Your task to perform on an android device: Show the shopping cart on bestbuy.com. Add "lenovo thinkpad" to the cart on bestbuy.com Image 0: 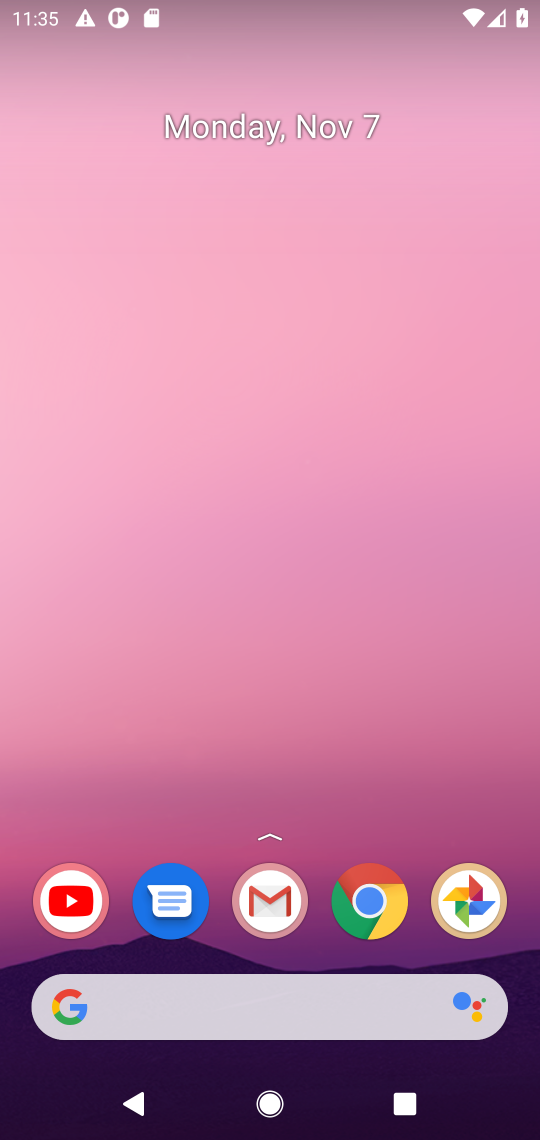
Step 0: click (387, 895)
Your task to perform on an android device: Show the shopping cart on bestbuy.com. Add "lenovo thinkpad" to the cart on bestbuy.com Image 1: 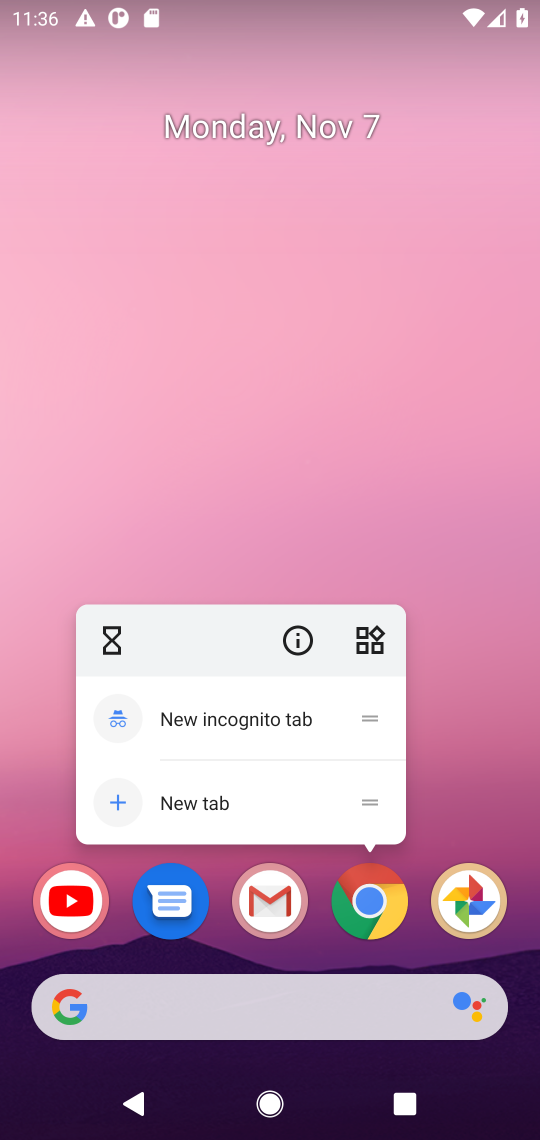
Step 1: click (395, 887)
Your task to perform on an android device: Show the shopping cart on bestbuy.com. Add "lenovo thinkpad" to the cart on bestbuy.com Image 2: 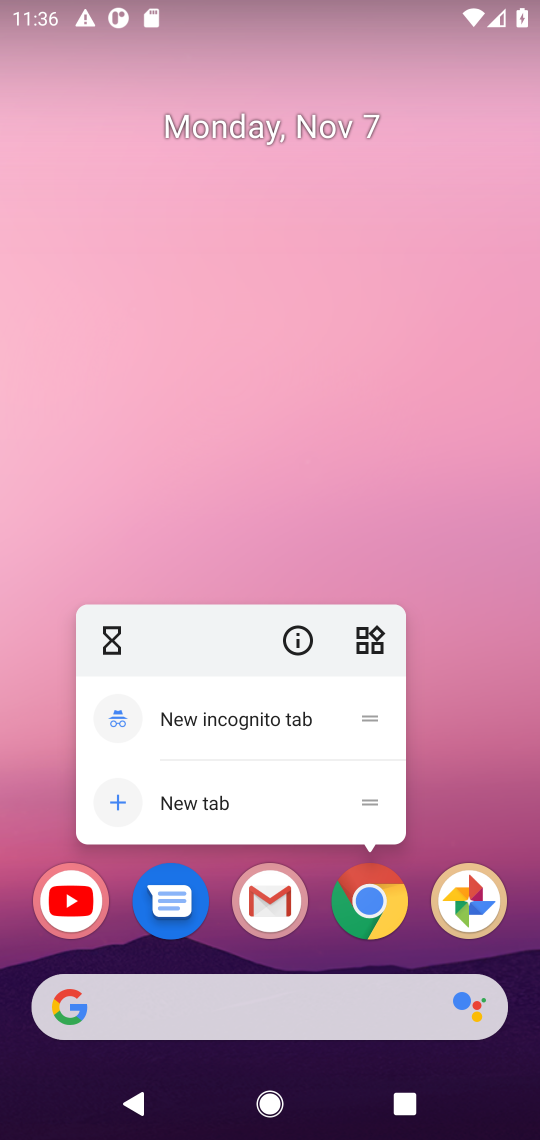
Step 2: click (395, 887)
Your task to perform on an android device: Show the shopping cart on bestbuy.com. Add "lenovo thinkpad" to the cart on bestbuy.com Image 3: 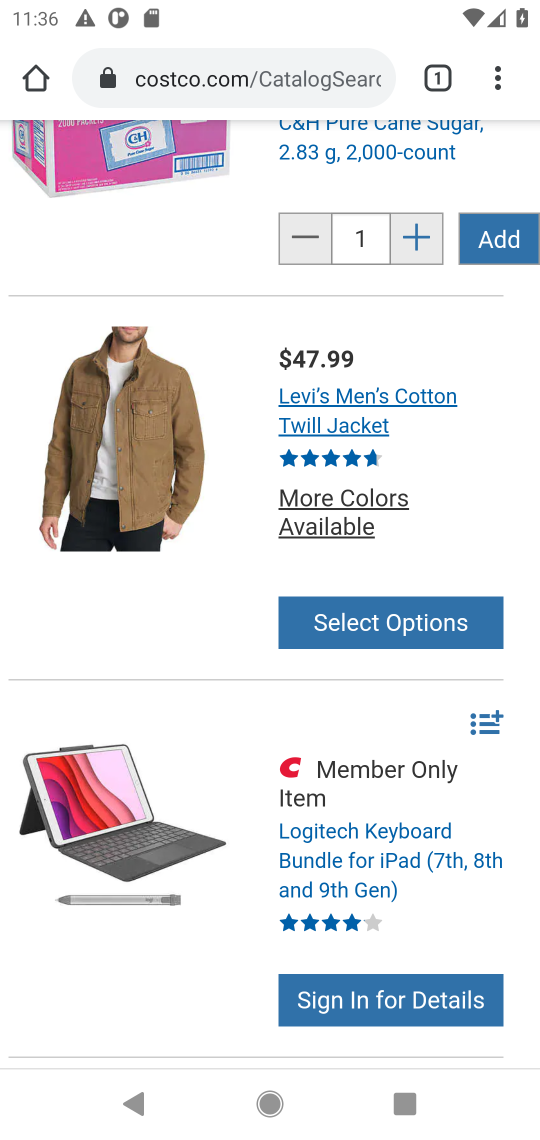
Step 3: click (214, 79)
Your task to perform on an android device: Show the shopping cart on bestbuy.com. Add "lenovo thinkpad" to the cart on bestbuy.com Image 4: 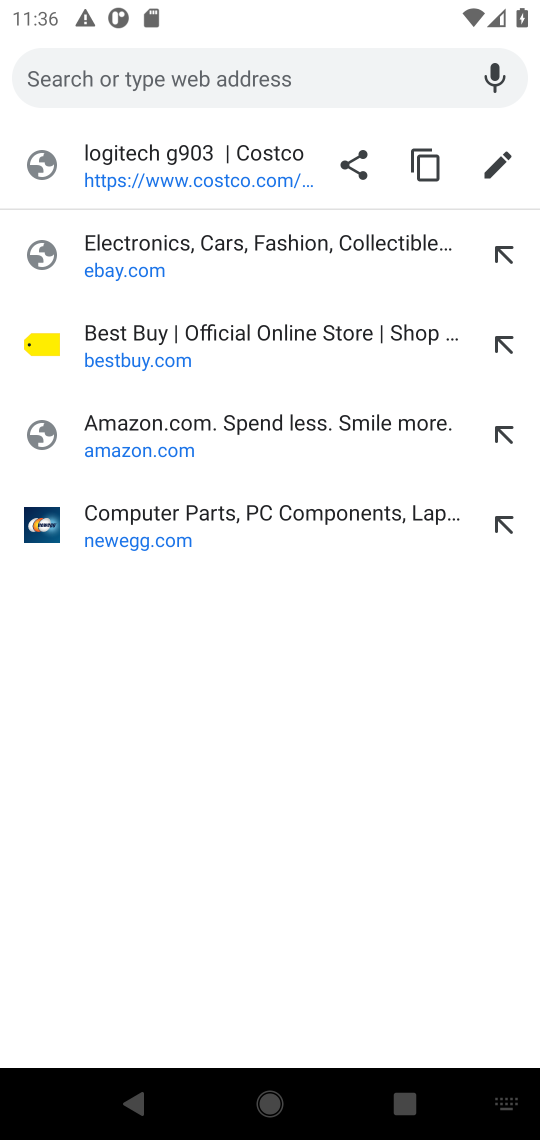
Step 4: type "bestbuy.com"
Your task to perform on an android device: Show the shopping cart on bestbuy.com. Add "lenovo thinkpad" to the cart on bestbuy.com Image 5: 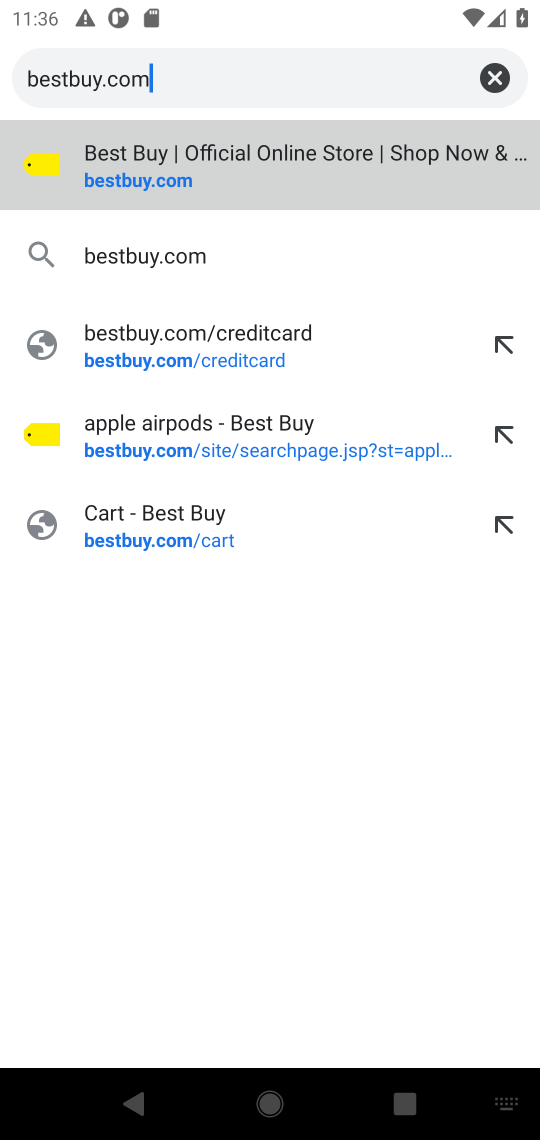
Step 5: click (235, 187)
Your task to perform on an android device: Show the shopping cart on bestbuy.com. Add "lenovo thinkpad" to the cart on bestbuy.com Image 6: 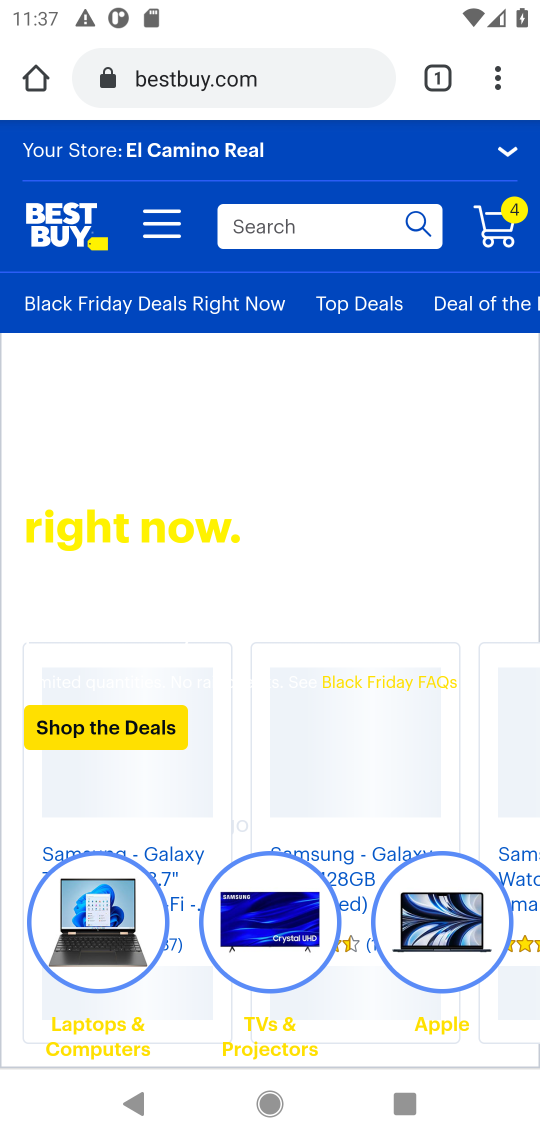
Step 6: click (342, 237)
Your task to perform on an android device: Show the shopping cart on bestbuy.com. Add "lenovo thinkpad" to the cart on bestbuy.com Image 7: 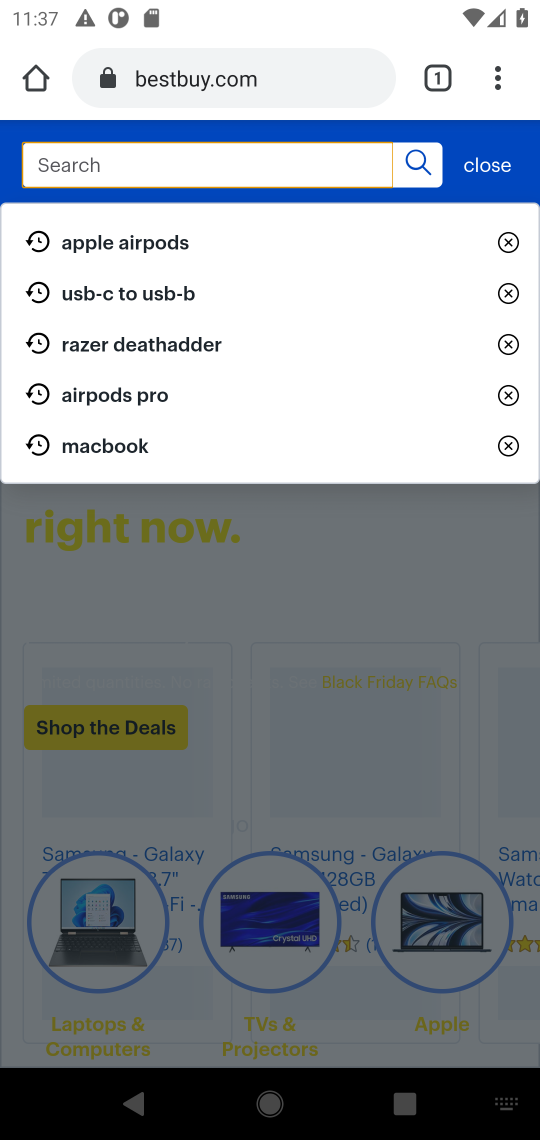
Step 7: type "lenovo thinkpad"
Your task to perform on an android device: Show the shopping cart on bestbuy.com. Add "lenovo thinkpad" to the cart on bestbuy.com Image 8: 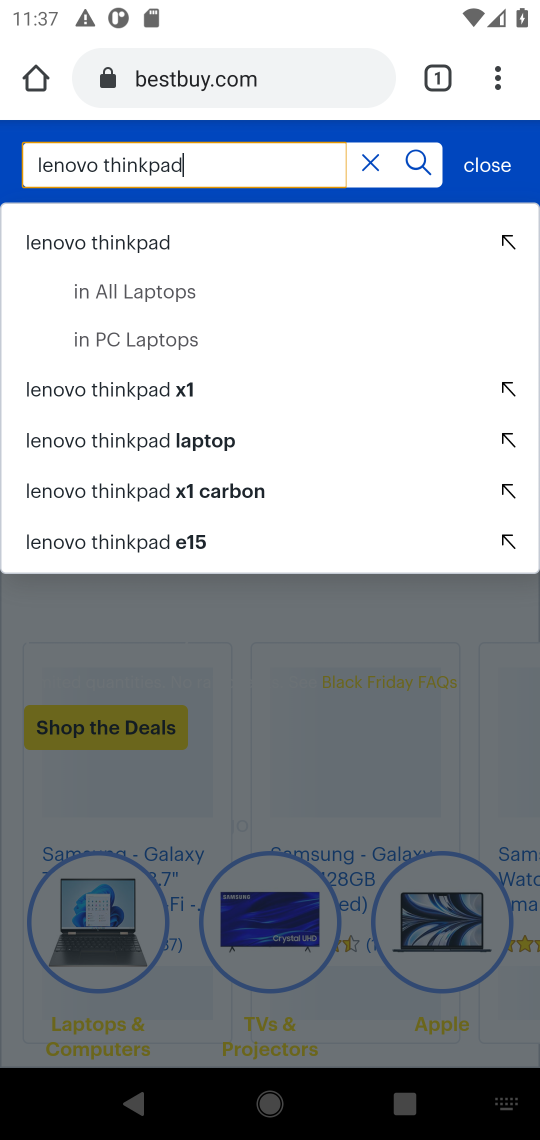
Step 8: click (241, 243)
Your task to perform on an android device: Show the shopping cart on bestbuy.com. Add "lenovo thinkpad" to the cart on bestbuy.com Image 9: 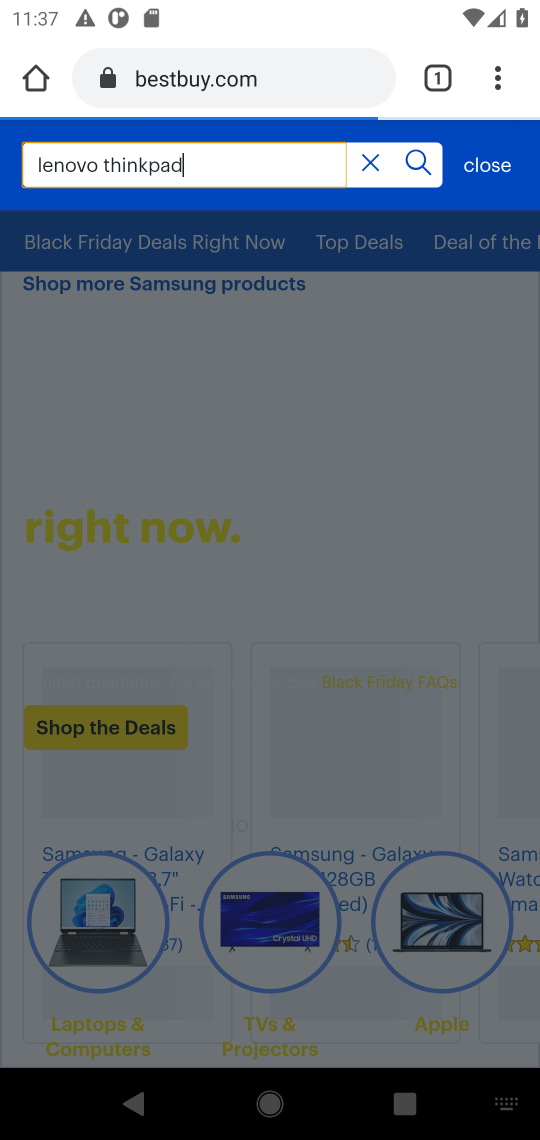
Step 9: press enter
Your task to perform on an android device: Show the shopping cart on bestbuy.com. Add "lenovo thinkpad" to the cart on bestbuy.com Image 10: 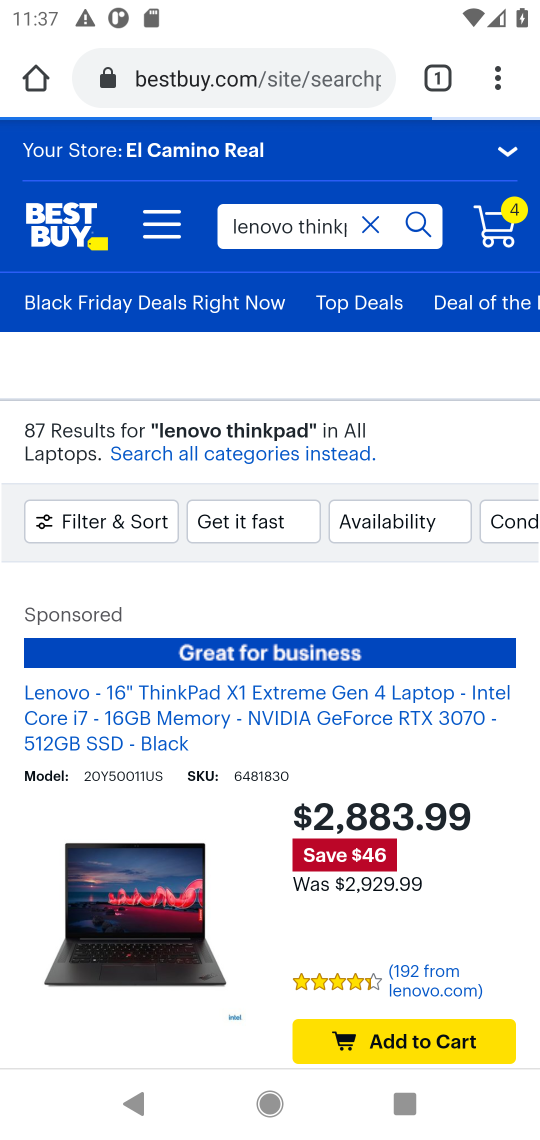
Step 10: click (363, 1040)
Your task to perform on an android device: Show the shopping cart on bestbuy.com. Add "lenovo thinkpad" to the cart on bestbuy.com Image 11: 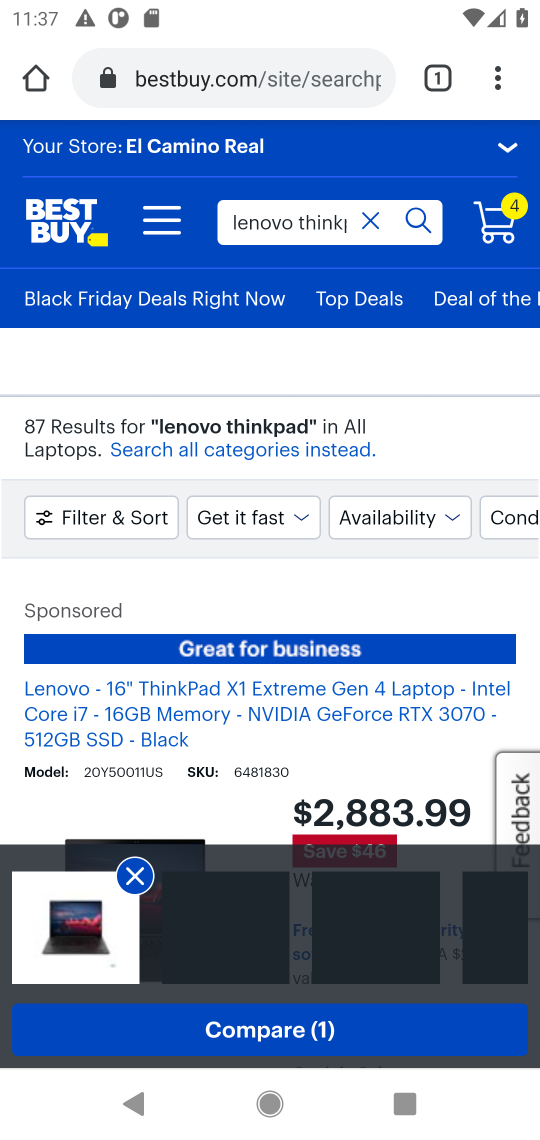
Step 11: drag from (315, 757) to (140, 370)
Your task to perform on an android device: Show the shopping cart on bestbuy.com. Add "lenovo thinkpad" to the cart on bestbuy.com Image 12: 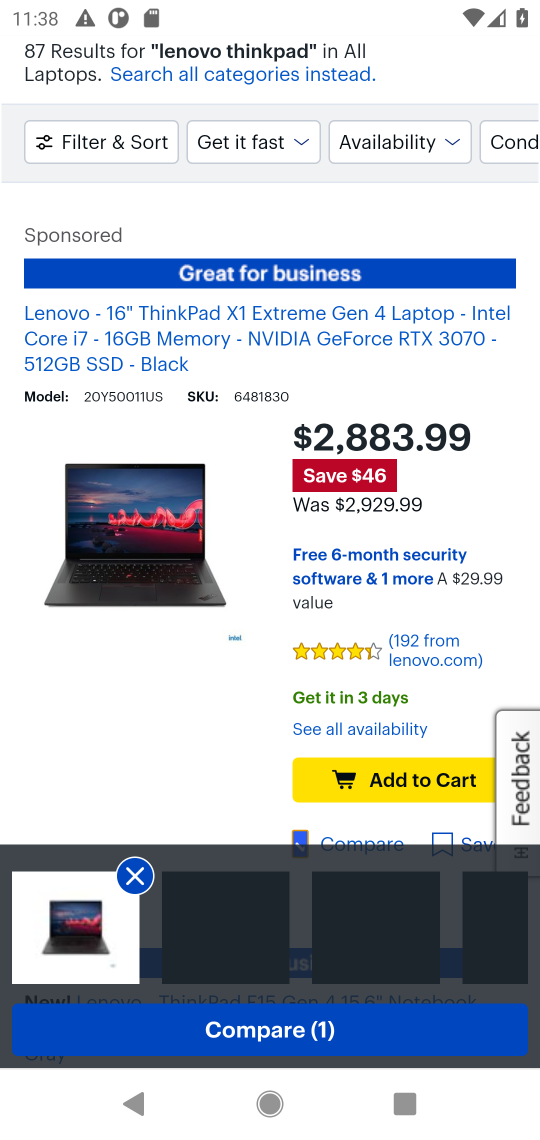
Step 12: click (147, 871)
Your task to perform on an android device: Show the shopping cart on bestbuy.com. Add "lenovo thinkpad" to the cart on bestbuy.com Image 13: 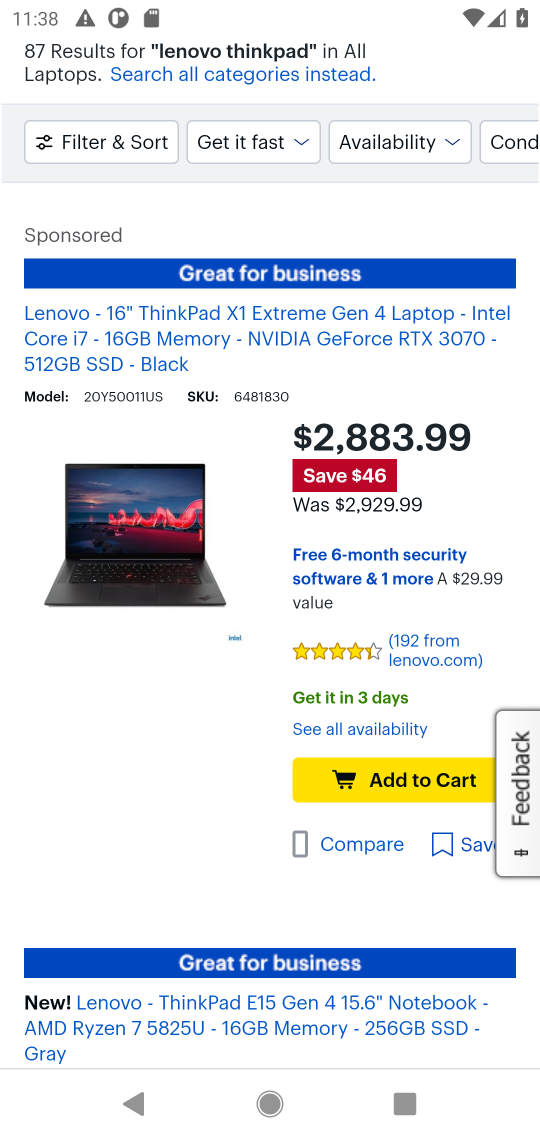
Step 13: click (404, 791)
Your task to perform on an android device: Show the shopping cart on bestbuy.com. Add "lenovo thinkpad" to the cart on bestbuy.com Image 14: 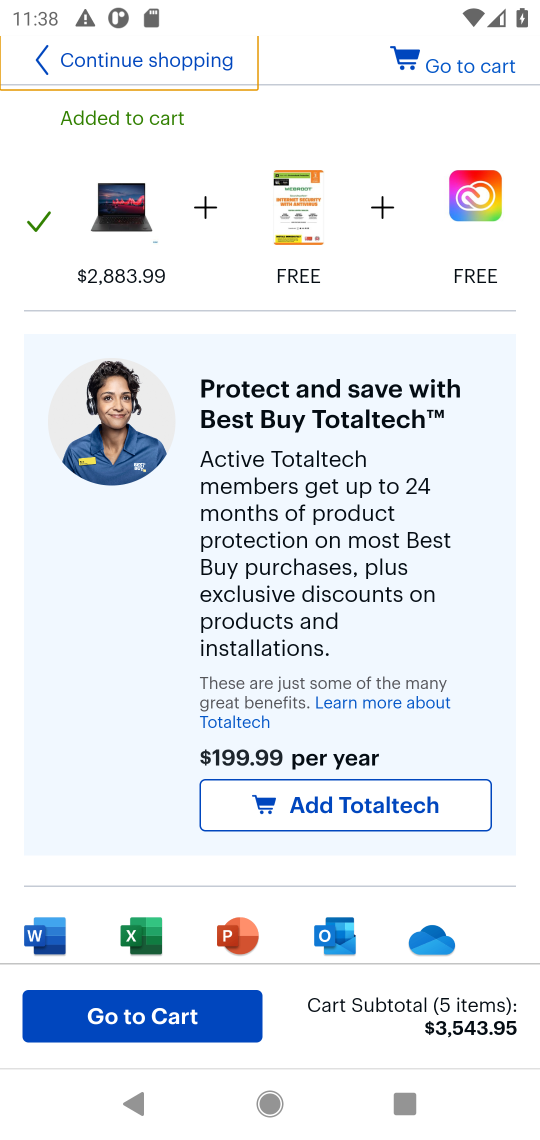
Step 14: click (208, 1030)
Your task to perform on an android device: Show the shopping cart on bestbuy.com. Add "lenovo thinkpad" to the cart on bestbuy.com Image 15: 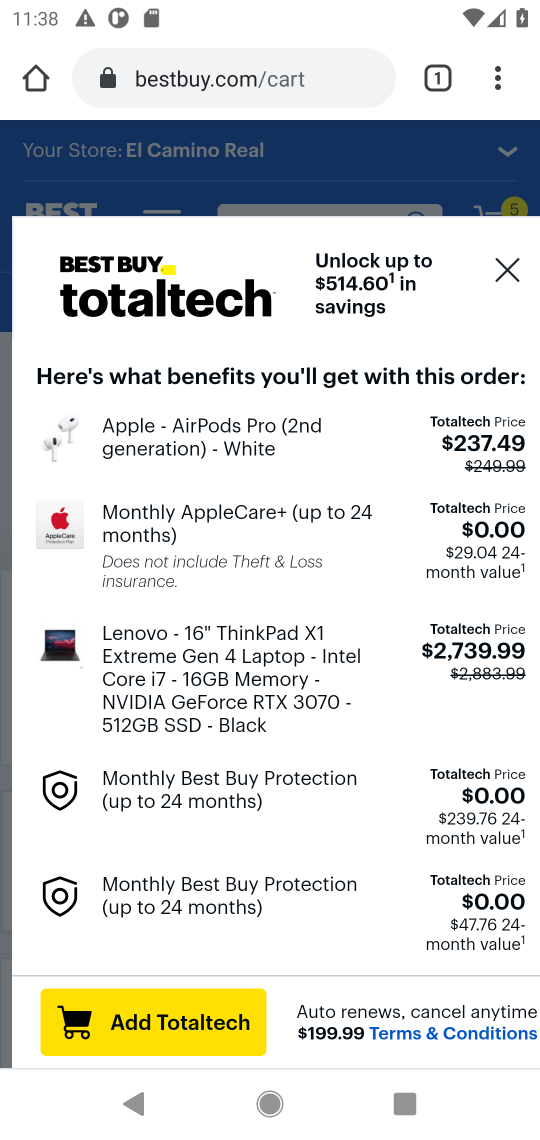
Step 15: click (504, 288)
Your task to perform on an android device: Show the shopping cart on bestbuy.com. Add "lenovo thinkpad" to the cart on bestbuy.com Image 16: 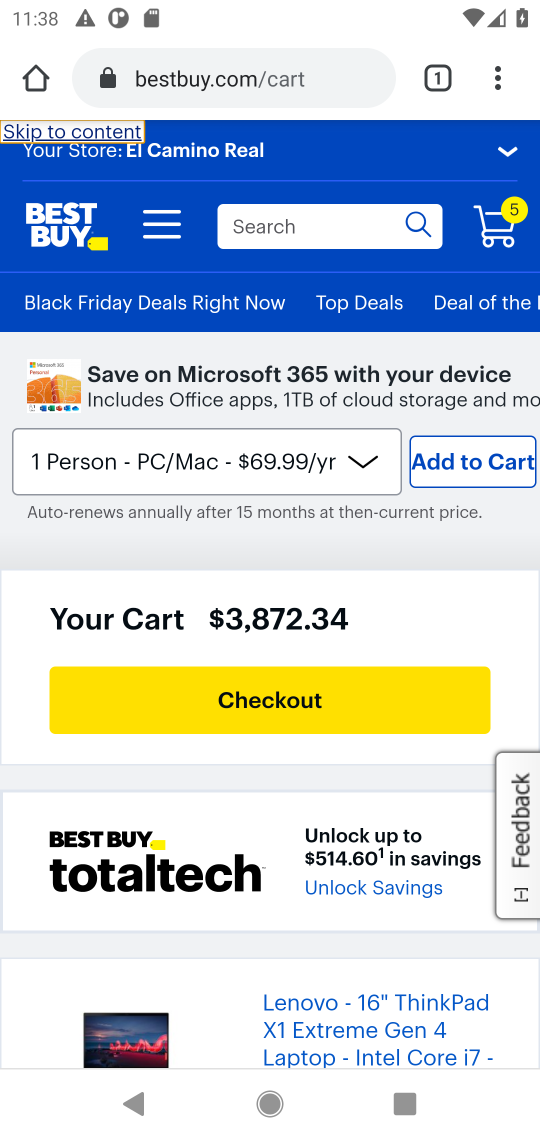
Step 16: click (271, 702)
Your task to perform on an android device: Show the shopping cart on bestbuy.com. Add "lenovo thinkpad" to the cart on bestbuy.com Image 17: 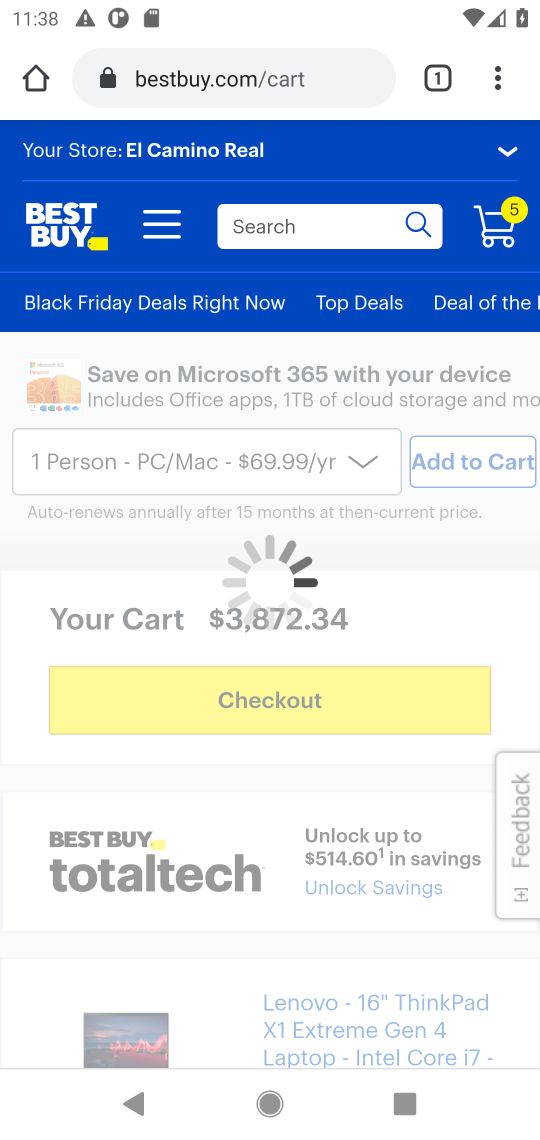
Step 17: task complete